Your task to perform on an android device: stop showing notifications on the lock screen Image 0: 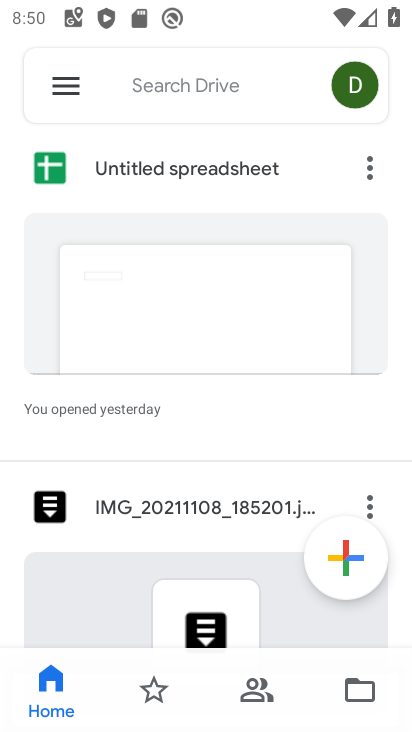
Step 0: press home button
Your task to perform on an android device: stop showing notifications on the lock screen Image 1: 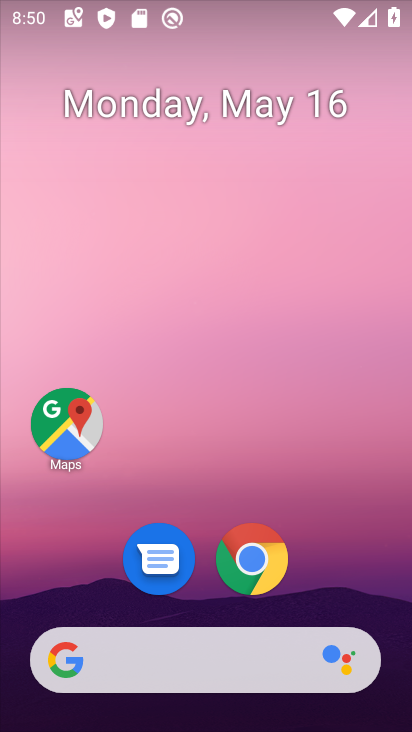
Step 1: drag from (310, 589) to (310, 68)
Your task to perform on an android device: stop showing notifications on the lock screen Image 2: 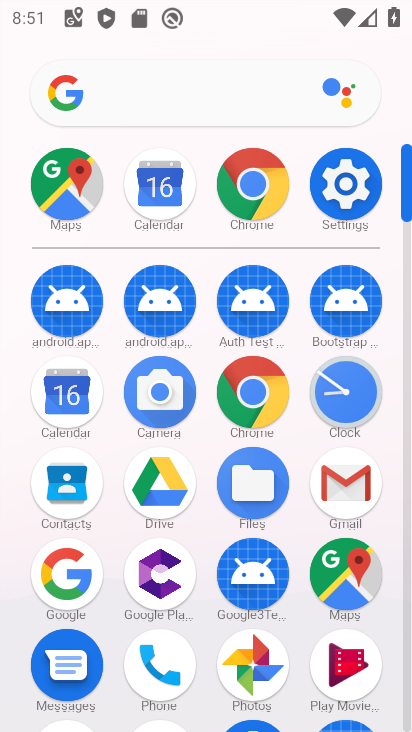
Step 2: click (340, 202)
Your task to perform on an android device: stop showing notifications on the lock screen Image 3: 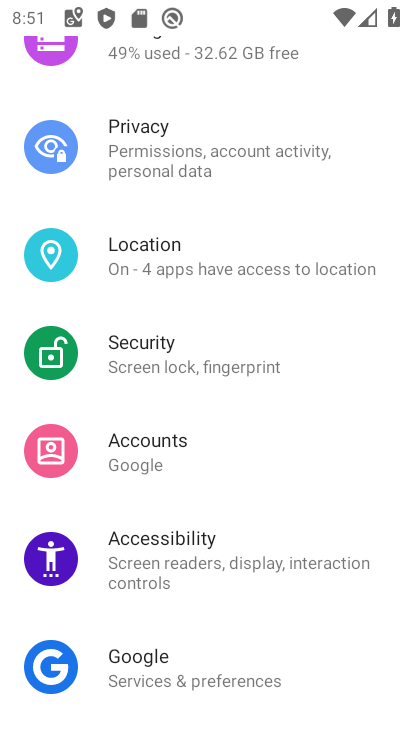
Step 3: drag from (220, 217) to (246, 537)
Your task to perform on an android device: stop showing notifications on the lock screen Image 4: 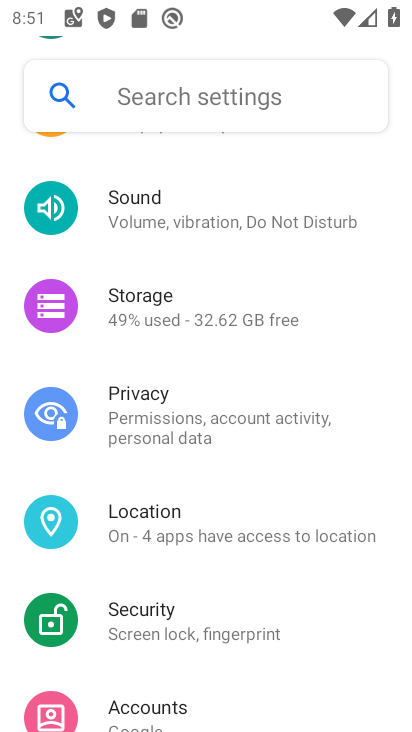
Step 4: drag from (292, 332) to (299, 603)
Your task to perform on an android device: stop showing notifications on the lock screen Image 5: 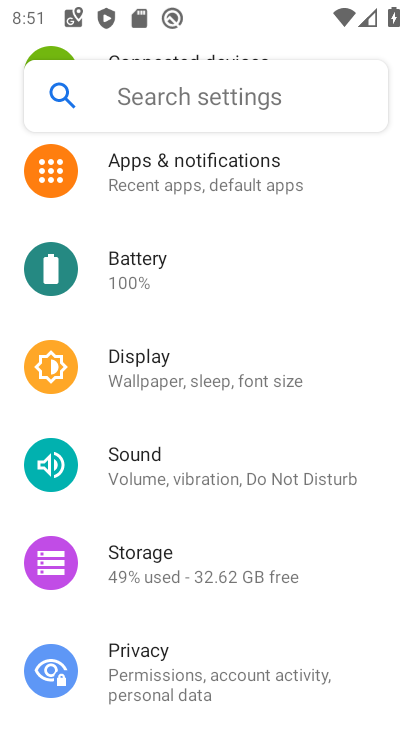
Step 5: click (252, 182)
Your task to perform on an android device: stop showing notifications on the lock screen Image 6: 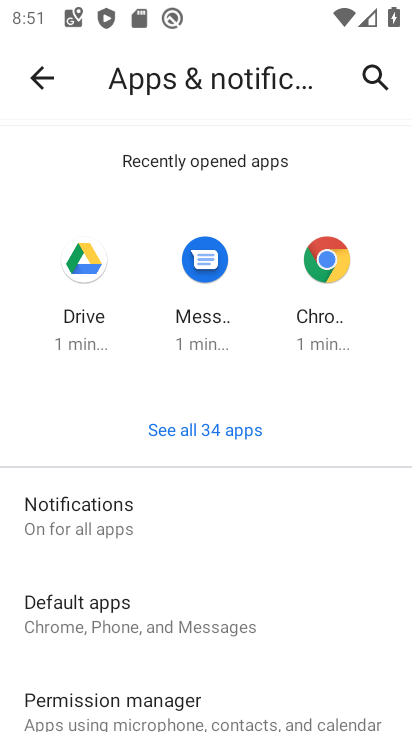
Step 6: click (210, 533)
Your task to perform on an android device: stop showing notifications on the lock screen Image 7: 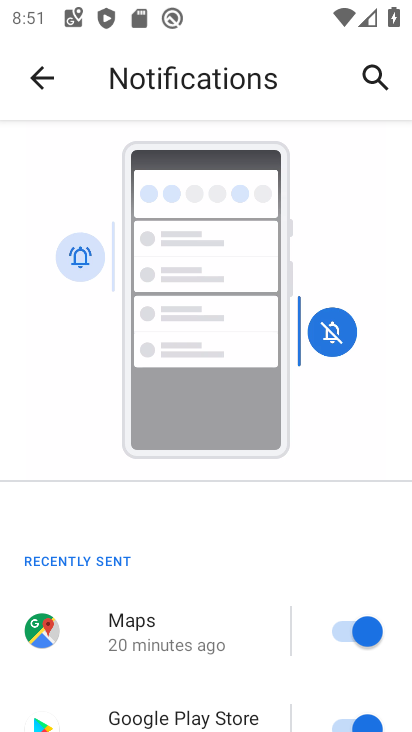
Step 7: drag from (182, 617) to (186, 173)
Your task to perform on an android device: stop showing notifications on the lock screen Image 8: 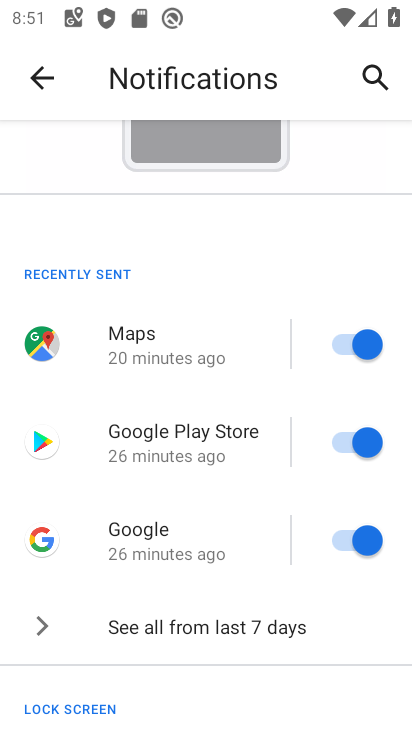
Step 8: drag from (196, 588) to (193, 309)
Your task to perform on an android device: stop showing notifications on the lock screen Image 9: 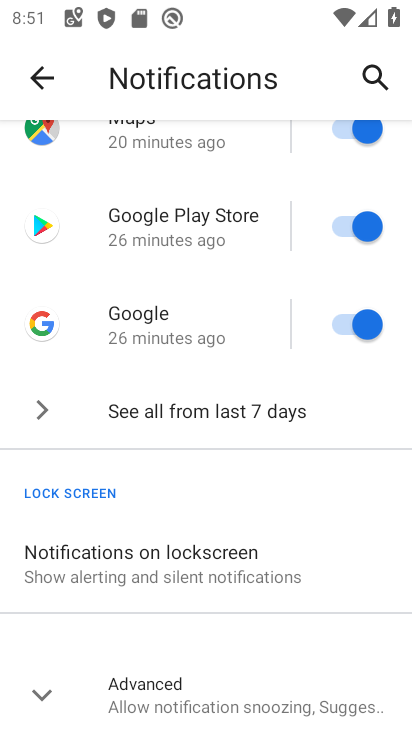
Step 9: click (190, 557)
Your task to perform on an android device: stop showing notifications on the lock screen Image 10: 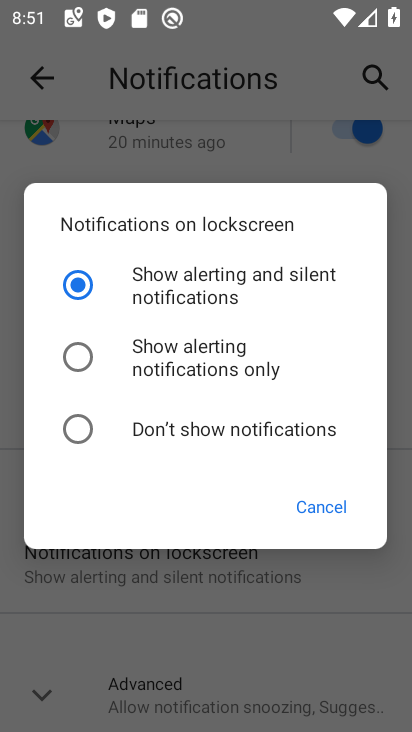
Step 10: click (228, 421)
Your task to perform on an android device: stop showing notifications on the lock screen Image 11: 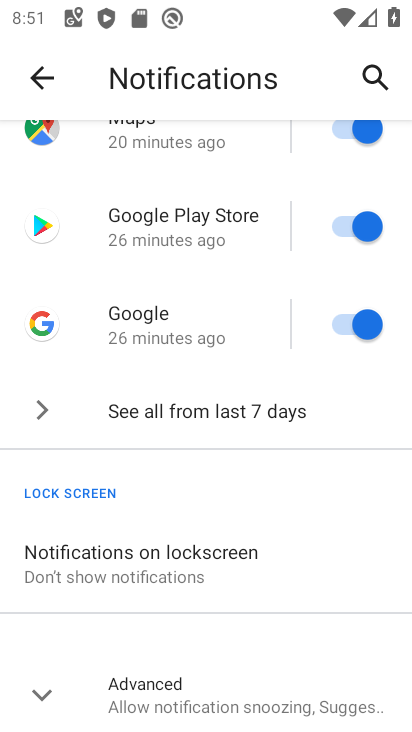
Step 11: click (242, 571)
Your task to perform on an android device: stop showing notifications on the lock screen Image 12: 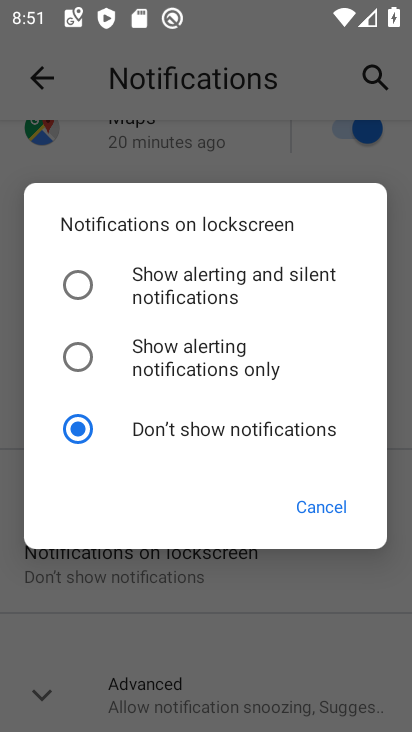
Step 12: task complete